Your task to perform on an android device: open device folders in google photos Image 0: 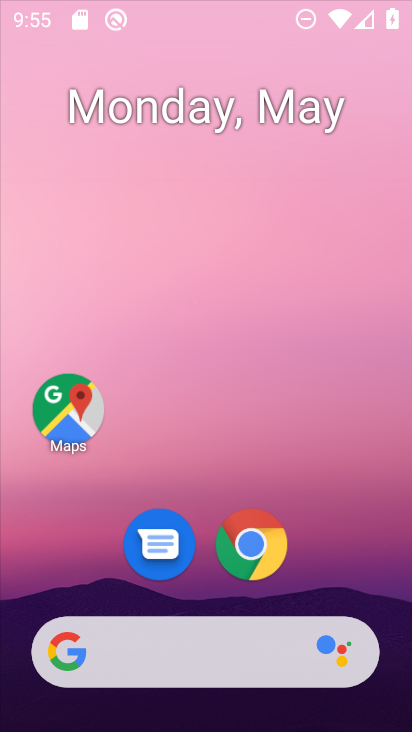
Step 0: click (178, 177)
Your task to perform on an android device: open device folders in google photos Image 1: 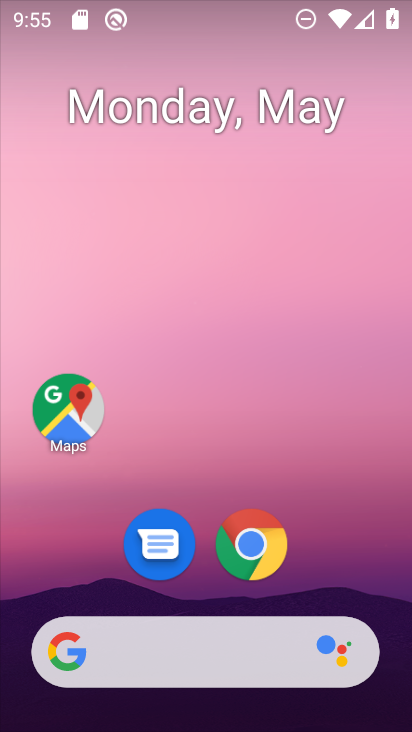
Step 1: drag from (339, 543) to (144, 95)
Your task to perform on an android device: open device folders in google photos Image 2: 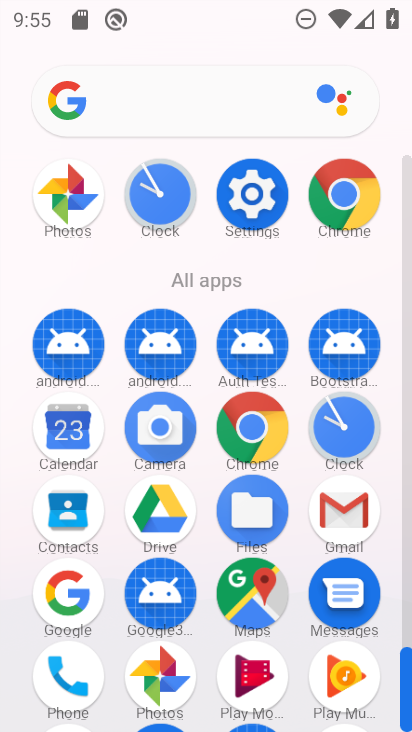
Step 2: click (162, 665)
Your task to perform on an android device: open device folders in google photos Image 3: 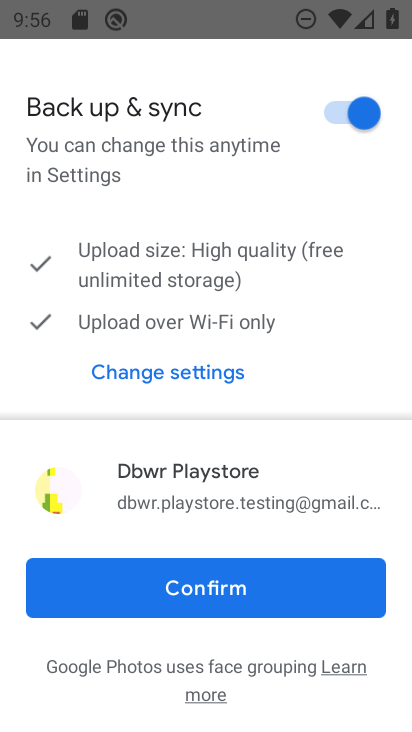
Step 3: click (219, 596)
Your task to perform on an android device: open device folders in google photos Image 4: 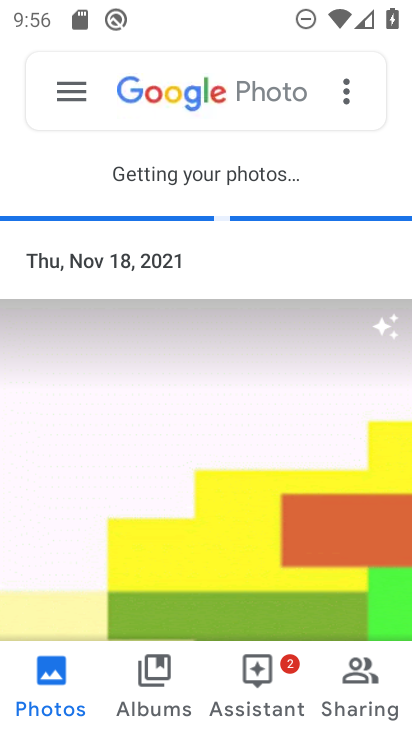
Step 4: click (68, 104)
Your task to perform on an android device: open device folders in google photos Image 5: 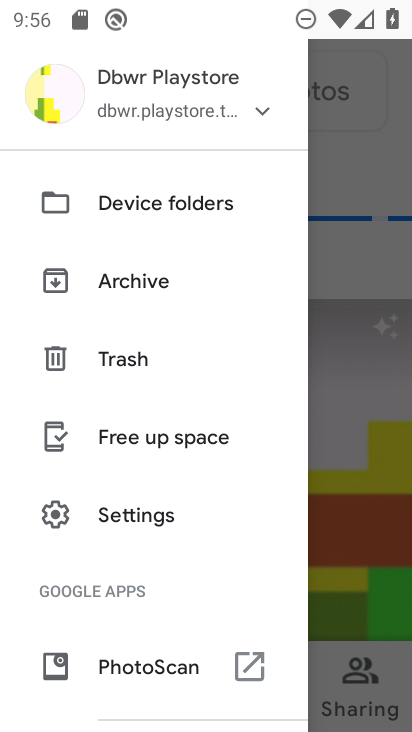
Step 5: click (147, 198)
Your task to perform on an android device: open device folders in google photos Image 6: 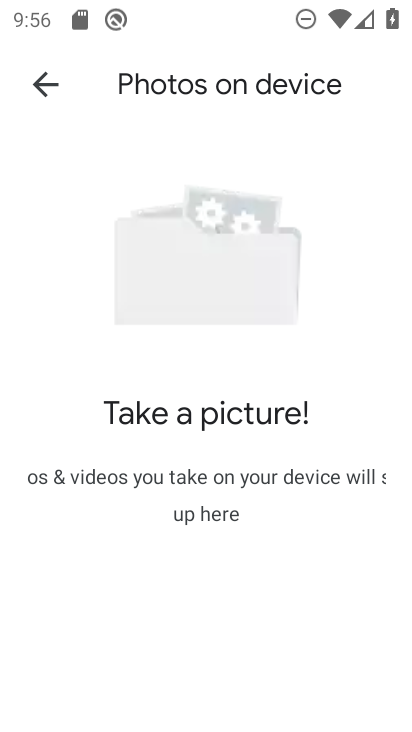
Step 6: task complete